Your task to perform on an android device: turn on translation in the chrome app Image 0: 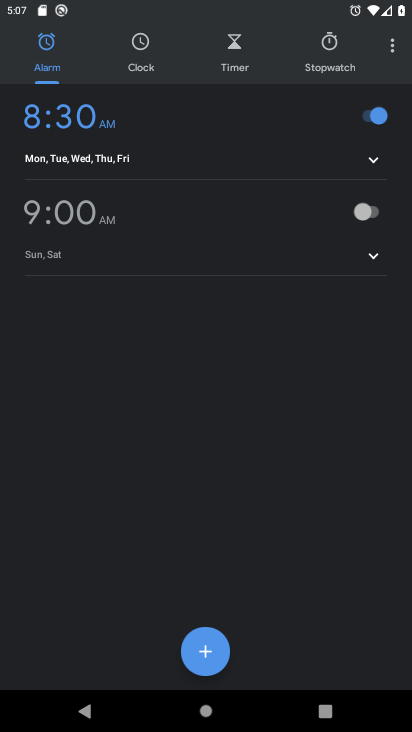
Step 0: press back button
Your task to perform on an android device: turn on translation in the chrome app Image 1: 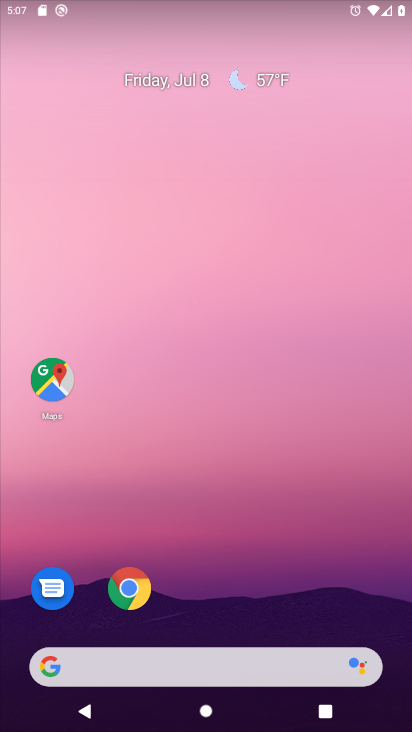
Step 1: click (207, 346)
Your task to perform on an android device: turn on translation in the chrome app Image 2: 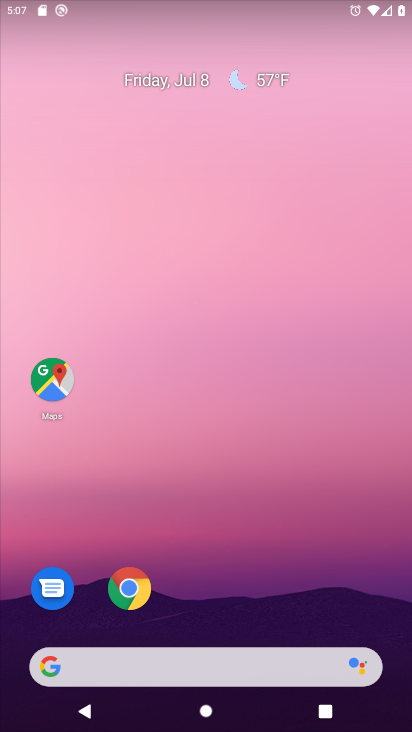
Step 2: drag from (211, 268) to (197, 151)
Your task to perform on an android device: turn on translation in the chrome app Image 3: 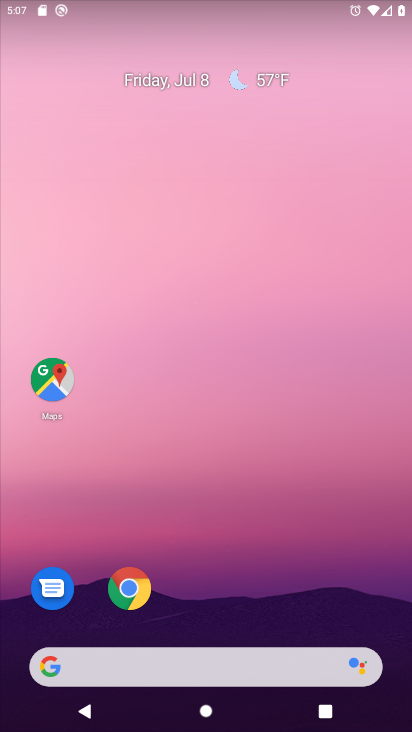
Step 3: drag from (293, 661) to (197, 118)
Your task to perform on an android device: turn on translation in the chrome app Image 4: 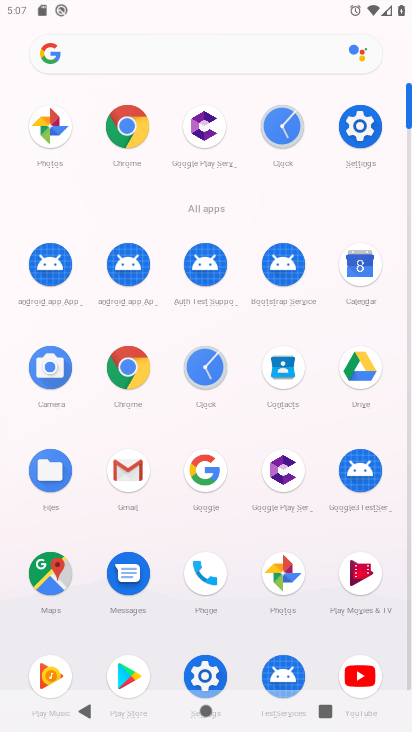
Step 4: click (120, 378)
Your task to perform on an android device: turn on translation in the chrome app Image 5: 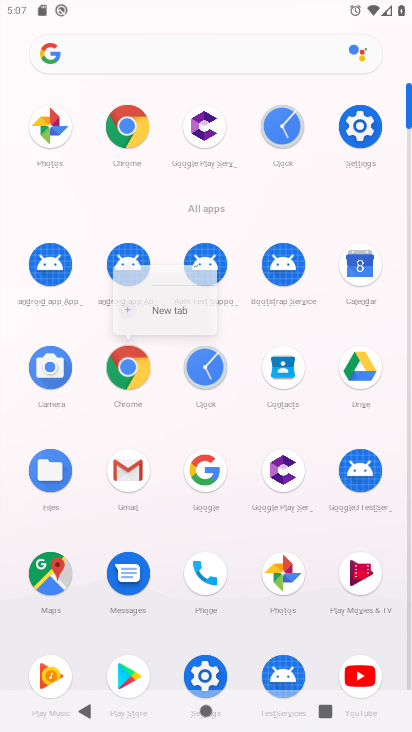
Step 5: click (121, 376)
Your task to perform on an android device: turn on translation in the chrome app Image 6: 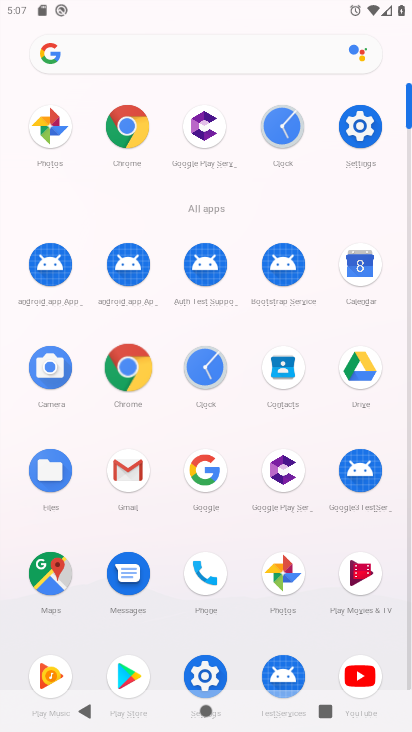
Step 6: click (123, 373)
Your task to perform on an android device: turn on translation in the chrome app Image 7: 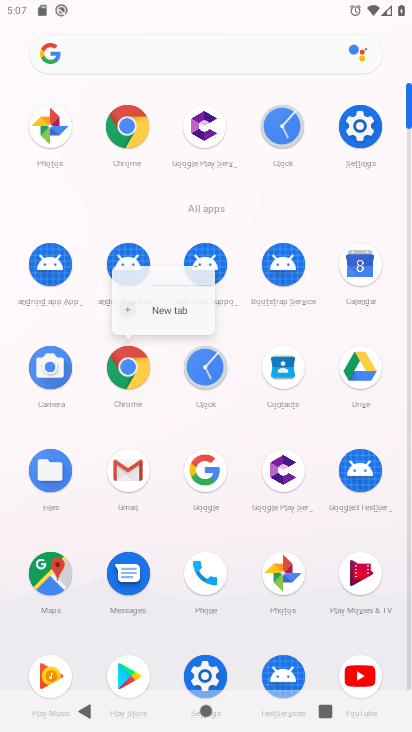
Step 7: click (125, 372)
Your task to perform on an android device: turn on translation in the chrome app Image 8: 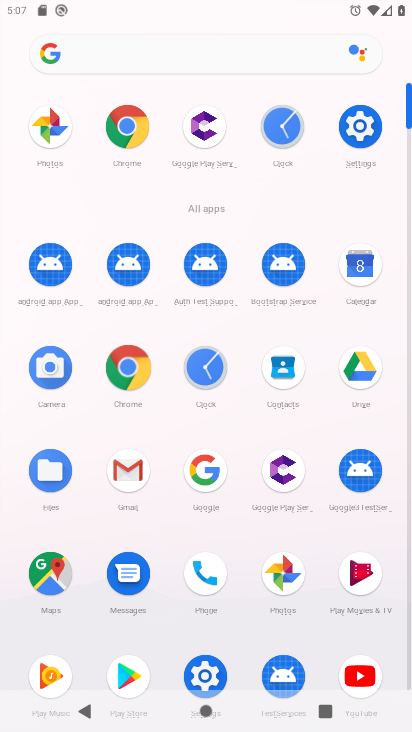
Step 8: click (126, 371)
Your task to perform on an android device: turn on translation in the chrome app Image 9: 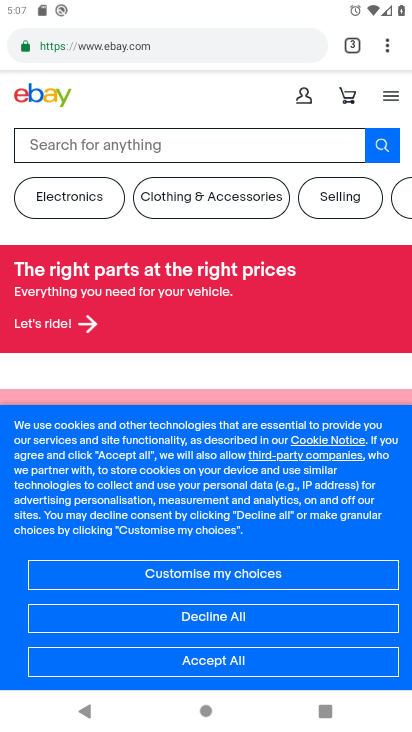
Step 9: click (385, 45)
Your task to perform on an android device: turn on translation in the chrome app Image 10: 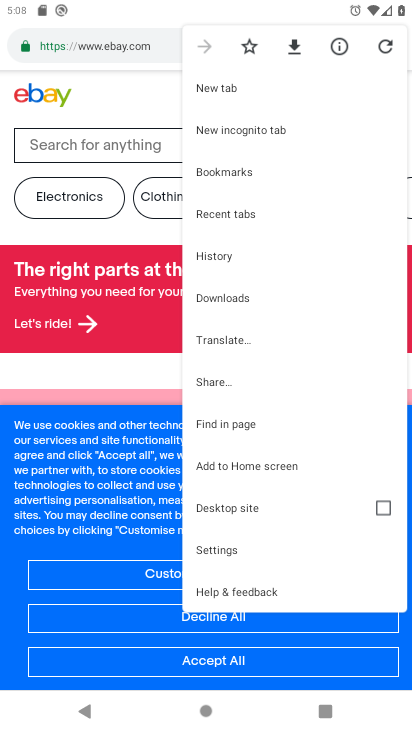
Step 10: click (234, 539)
Your task to perform on an android device: turn on translation in the chrome app Image 11: 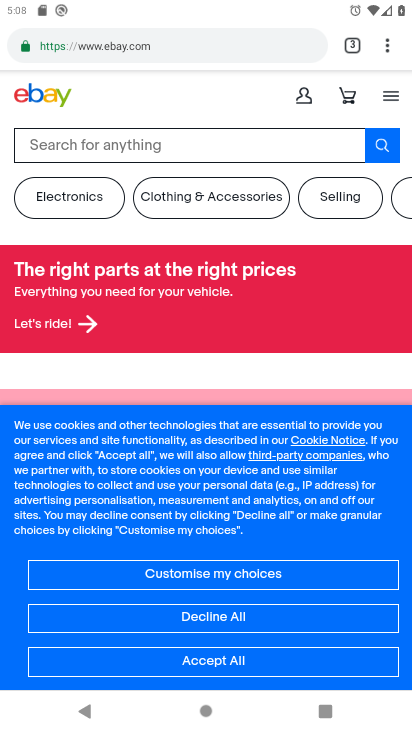
Step 11: click (234, 545)
Your task to perform on an android device: turn on translation in the chrome app Image 12: 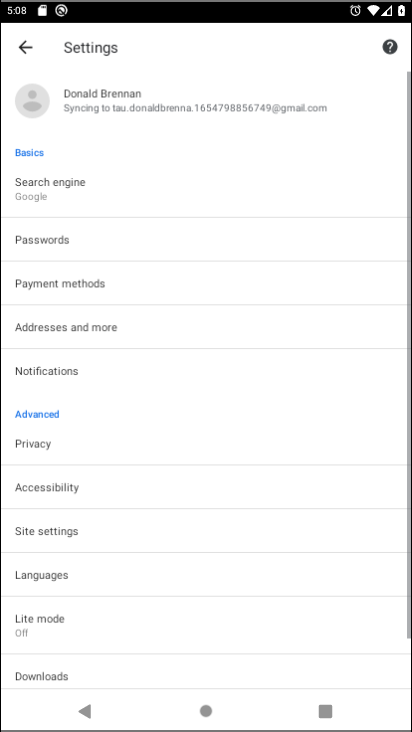
Step 12: click (214, 558)
Your task to perform on an android device: turn on translation in the chrome app Image 13: 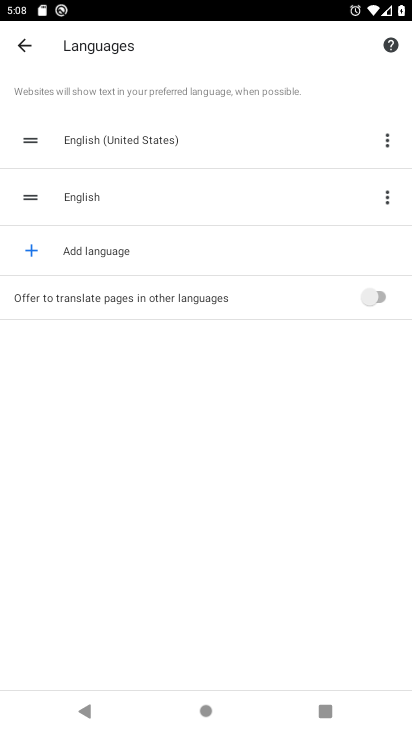
Step 13: click (384, 300)
Your task to perform on an android device: turn on translation in the chrome app Image 14: 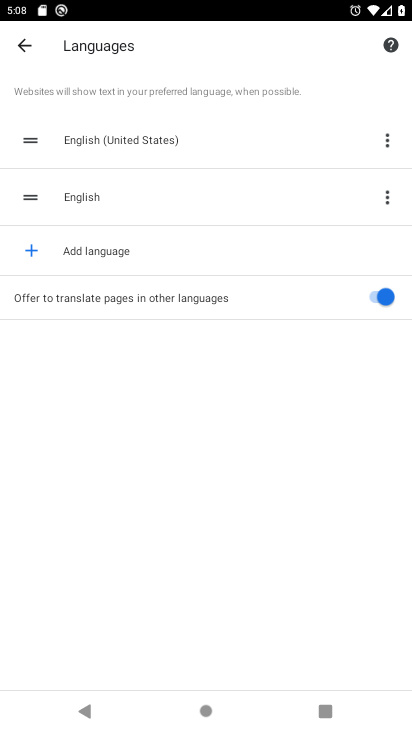
Step 14: click (12, 32)
Your task to perform on an android device: turn on translation in the chrome app Image 15: 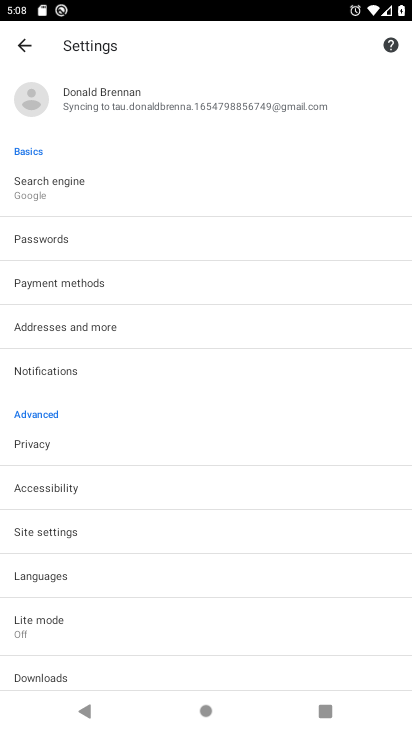
Step 15: press back button
Your task to perform on an android device: turn on translation in the chrome app Image 16: 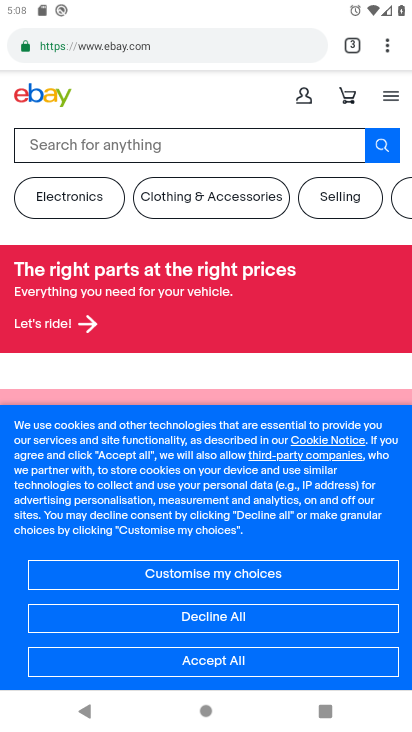
Step 16: click (389, 46)
Your task to perform on an android device: turn on translation in the chrome app Image 17: 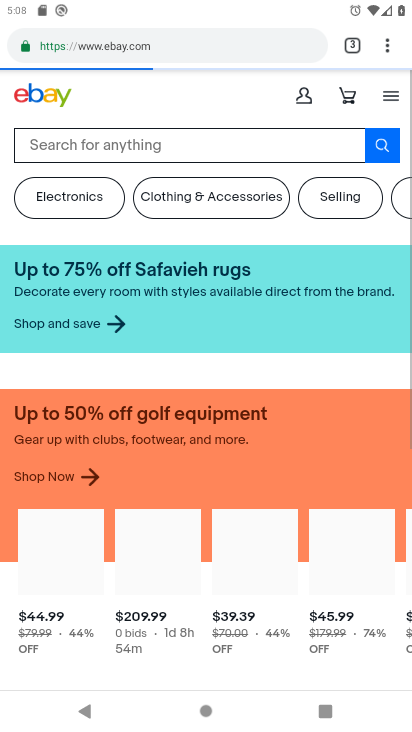
Step 17: click (389, 46)
Your task to perform on an android device: turn on translation in the chrome app Image 18: 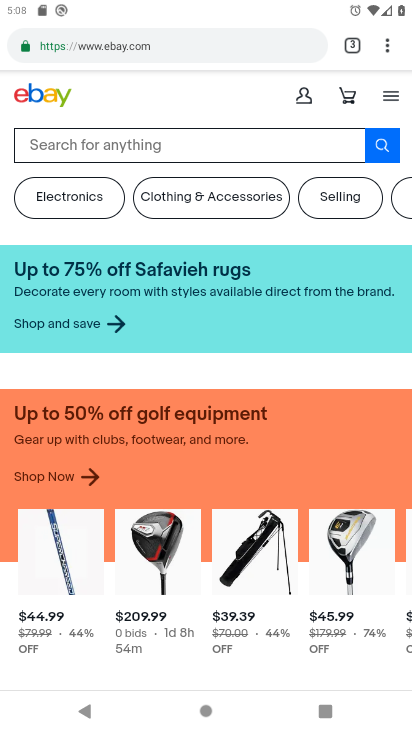
Step 18: drag from (389, 46) to (247, 470)
Your task to perform on an android device: turn on translation in the chrome app Image 19: 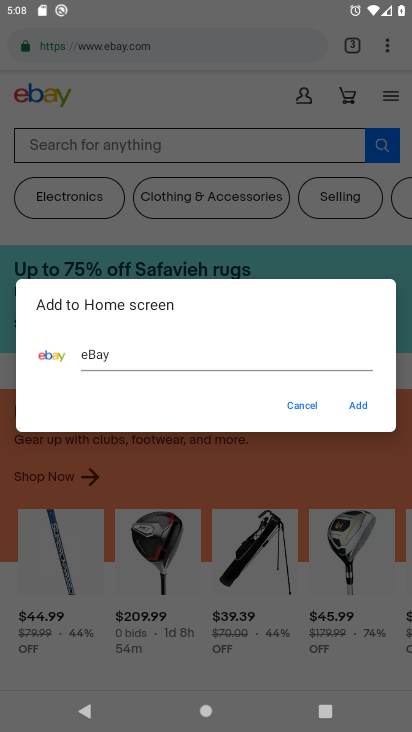
Step 19: click (304, 407)
Your task to perform on an android device: turn on translation in the chrome app Image 20: 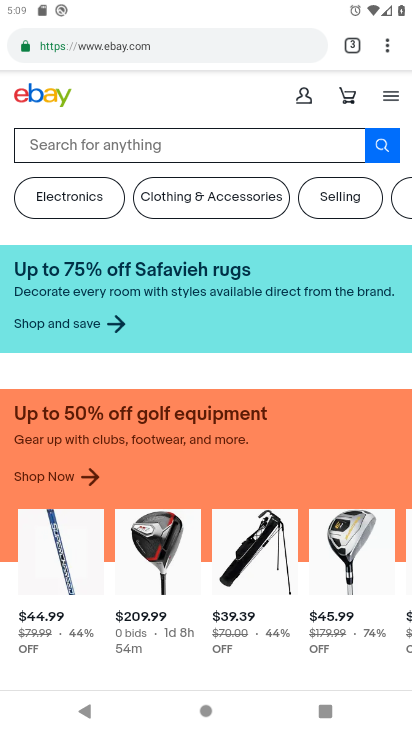
Step 20: click (387, 44)
Your task to perform on an android device: turn on translation in the chrome app Image 21: 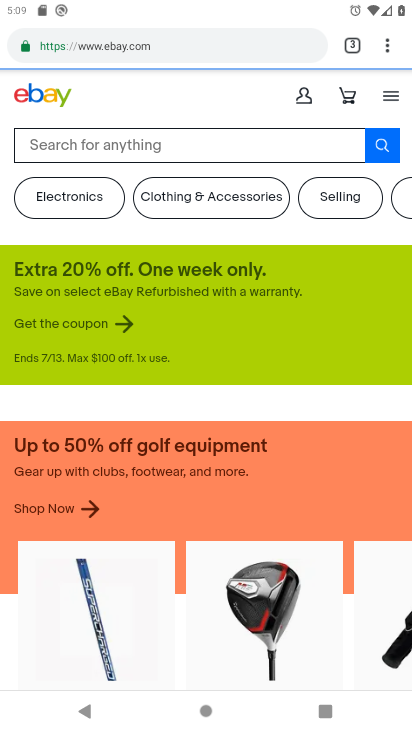
Step 21: click (383, 43)
Your task to perform on an android device: turn on translation in the chrome app Image 22: 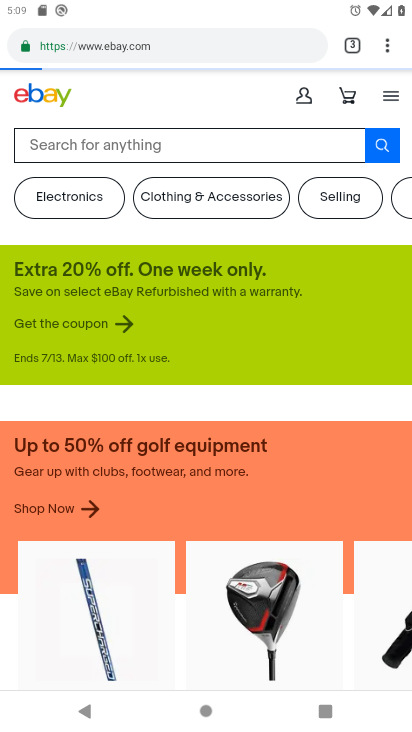
Step 22: click (387, 43)
Your task to perform on an android device: turn on translation in the chrome app Image 23: 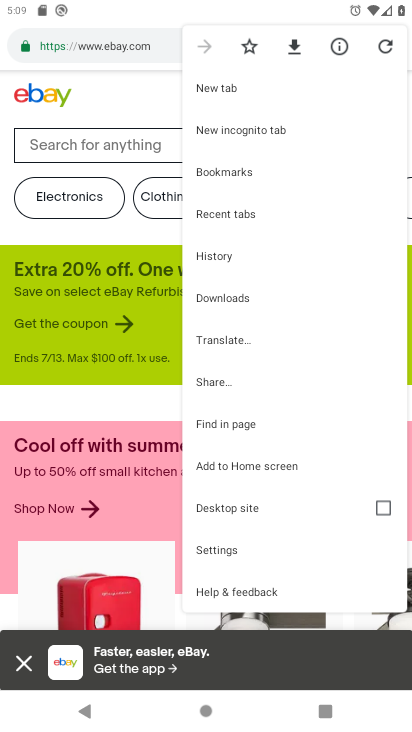
Step 23: click (215, 340)
Your task to perform on an android device: turn on translation in the chrome app Image 24: 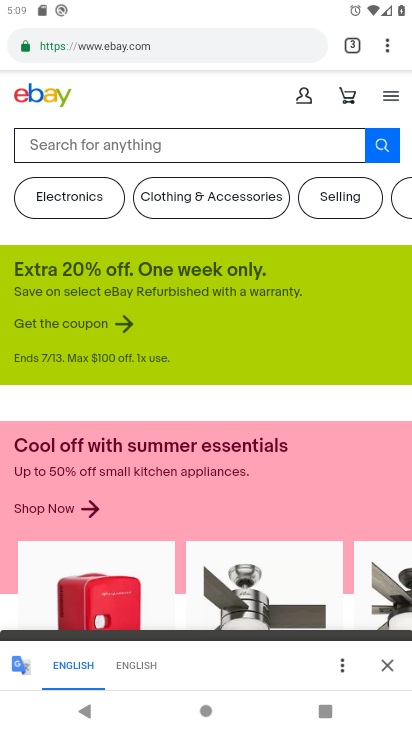
Step 24: click (217, 337)
Your task to perform on an android device: turn on translation in the chrome app Image 25: 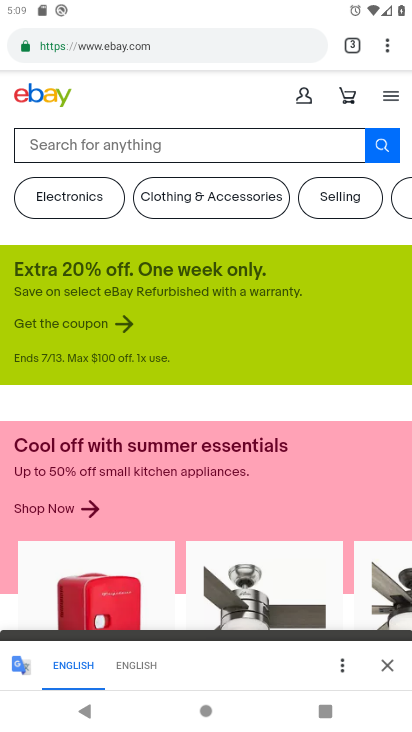
Step 25: click (391, 45)
Your task to perform on an android device: turn on translation in the chrome app Image 26: 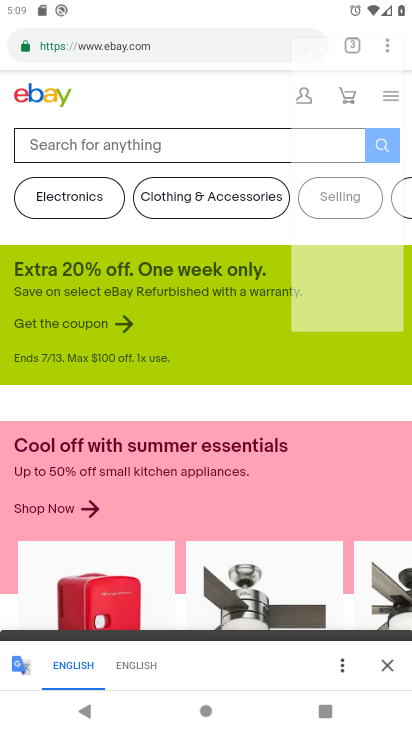
Step 26: click (391, 45)
Your task to perform on an android device: turn on translation in the chrome app Image 27: 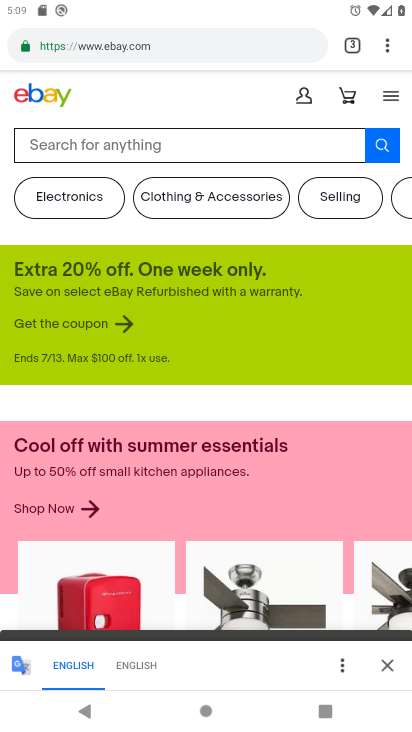
Step 27: click (391, 45)
Your task to perform on an android device: turn on translation in the chrome app Image 28: 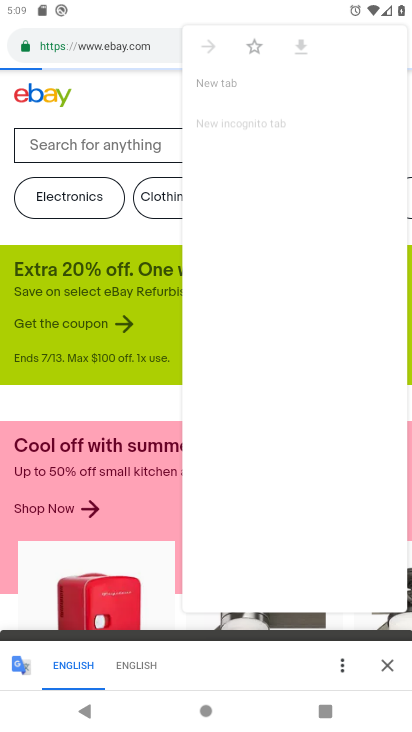
Step 28: click (392, 39)
Your task to perform on an android device: turn on translation in the chrome app Image 29: 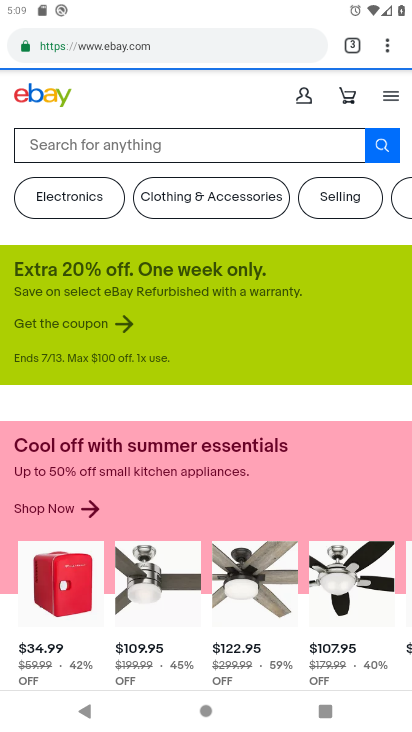
Step 29: drag from (387, 49) to (226, 338)
Your task to perform on an android device: turn on translation in the chrome app Image 30: 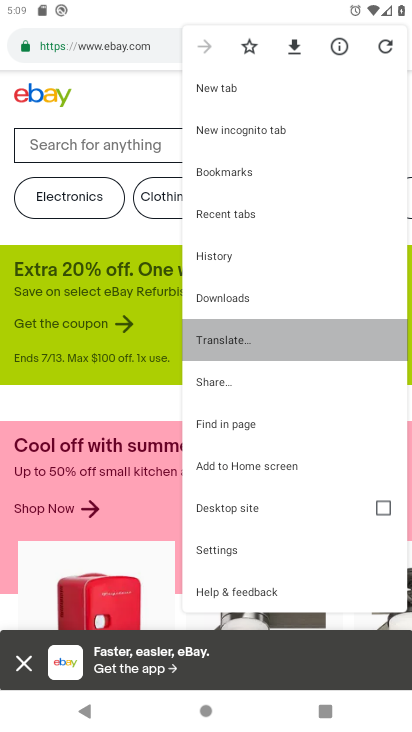
Step 30: click (227, 340)
Your task to perform on an android device: turn on translation in the chrome app Image 31: 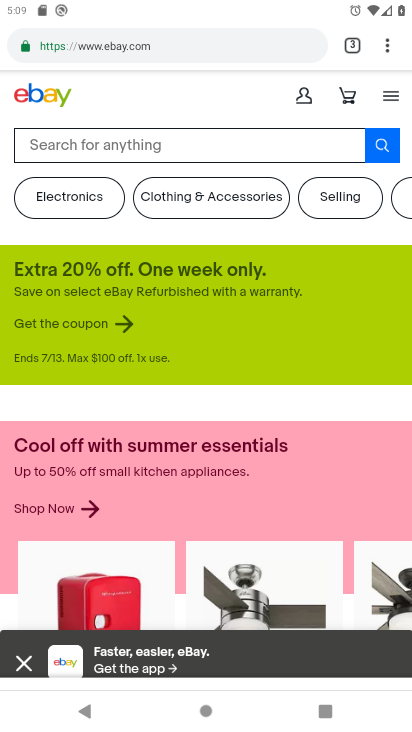
Step 31: click (227, 340)
Your task to perform on an android device: turn on translation in the chrome app Image 32: 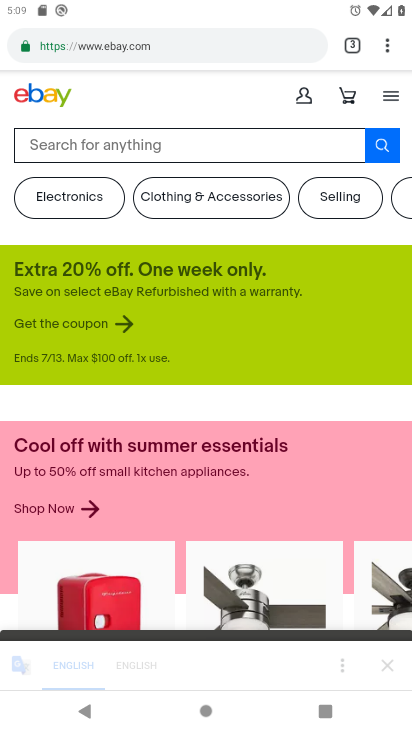
Step 32: click (227, 340)
Your task to perform on an android device: turn on translation in the chrome app Image 33: 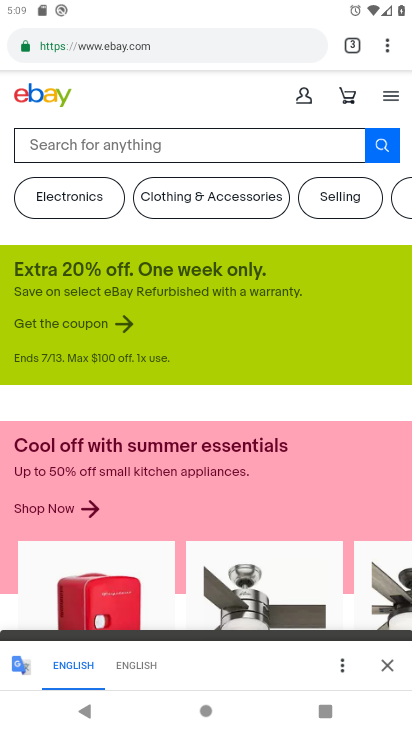
Step 33: click (227, 341)
Your task to perform on an android device: turn on translation in the chrome app Image 34: 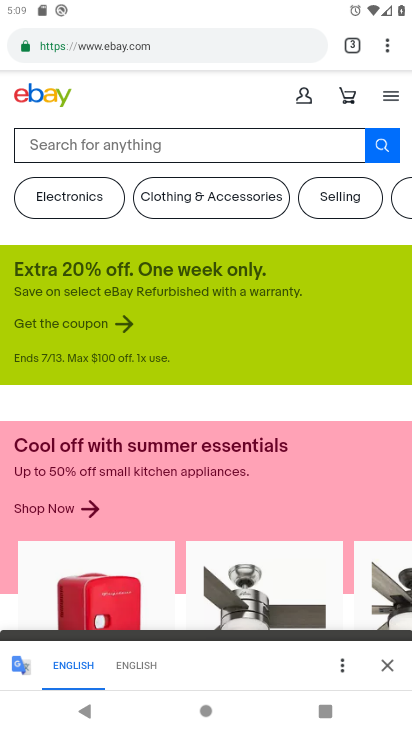
Step 34: click (229, 342)
Your task to perform on an android device: turn on translation in the chrome app Image 35: 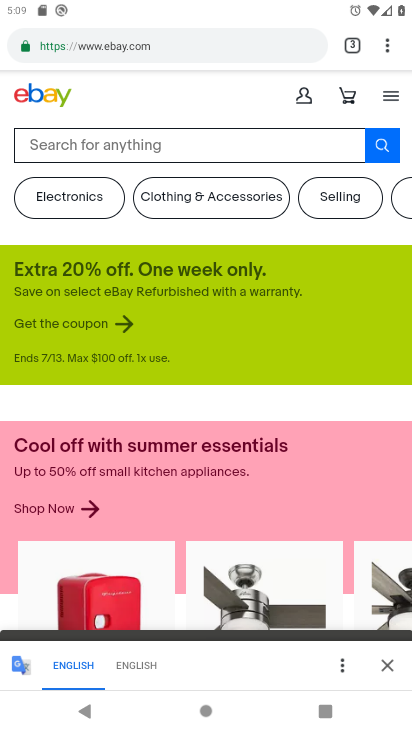
Step 35: click (230, 342)
Your task to perform on an android device: turn on translation in the chrome app Image 36: 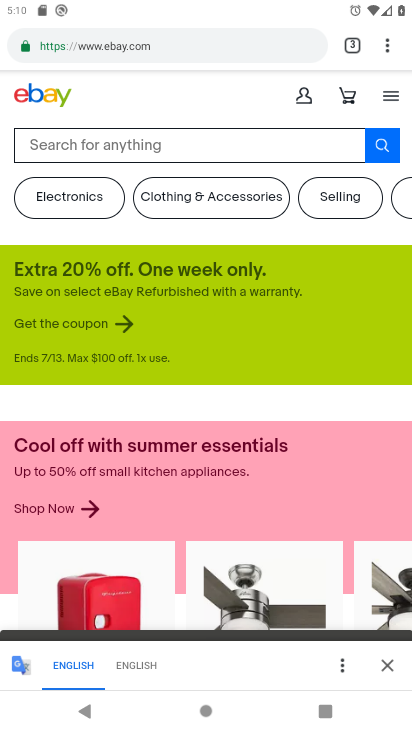
Step 36: task complete